Your task to perform on an android device: turn off sleep mode Image 0: 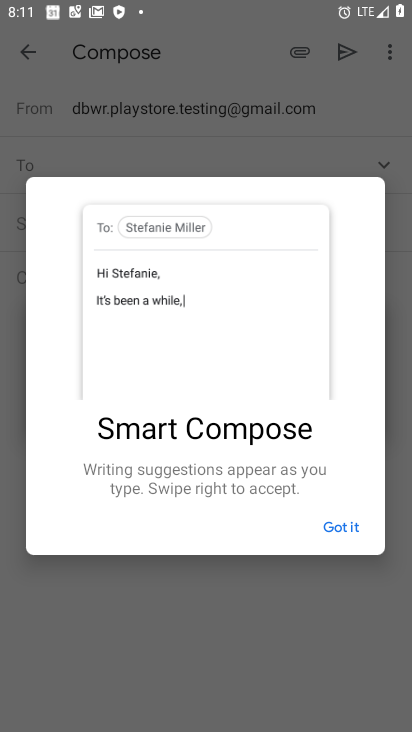
Step 0: drag from (264, 16) to (137, 631)
Your task to perform on an android device: turn off sleep mode Image 1: 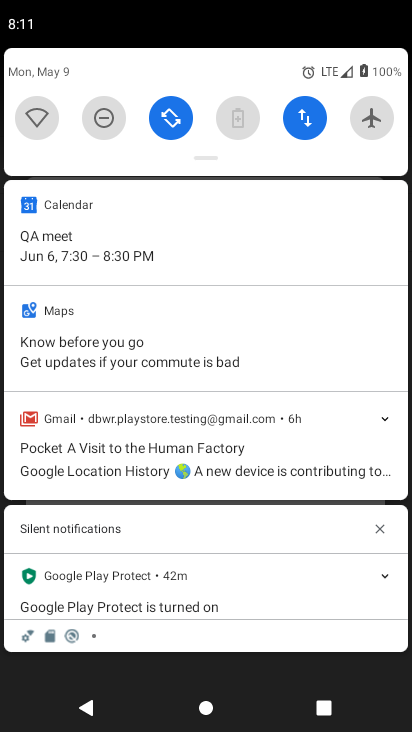
Step 1: drag from (186, 79) to (148, 549)
Your task to perform on an android device: turn off sleep mode Image 2: 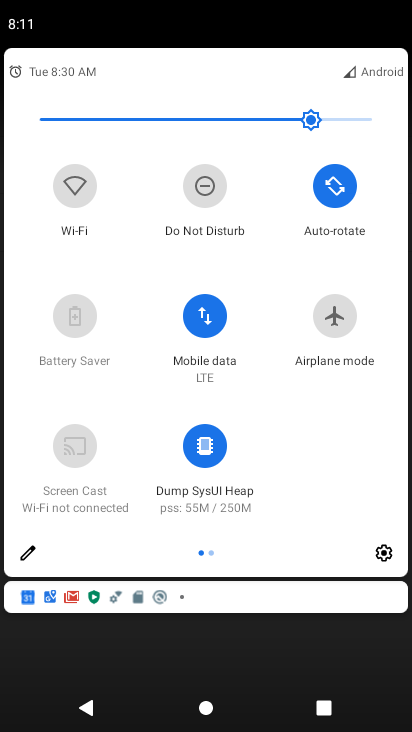
Step 2: click (382, 554)
Your task to perform on an android device: turn off sleep mode Image 3: 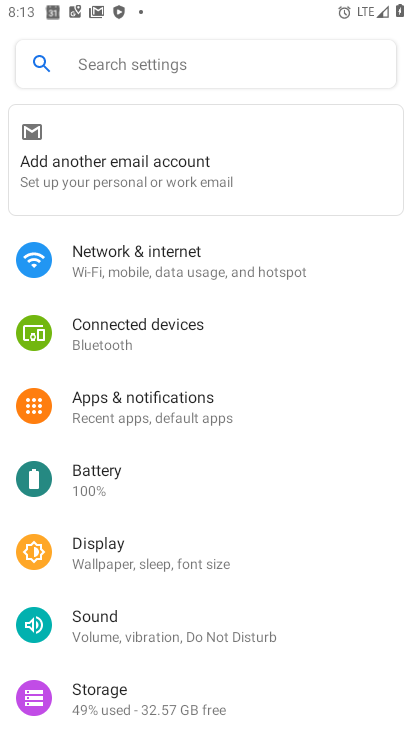
Step 3: task complete